Your task to perform on an android device: open sync settings in chrome Image 0: 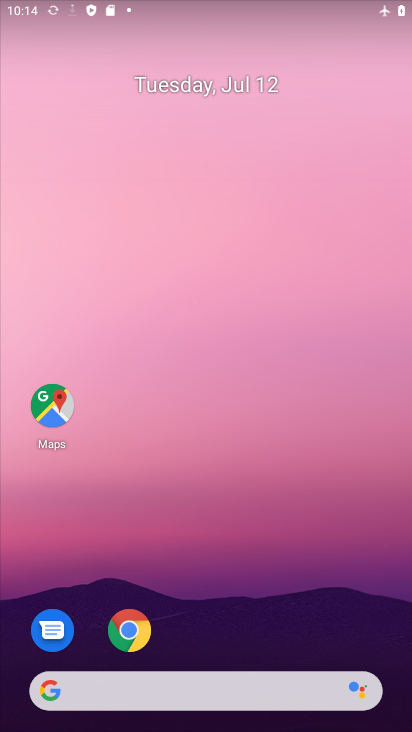
Step 0: click (135, 631)
Your task to perform on an android device: open sync settings in chrome Image 1: 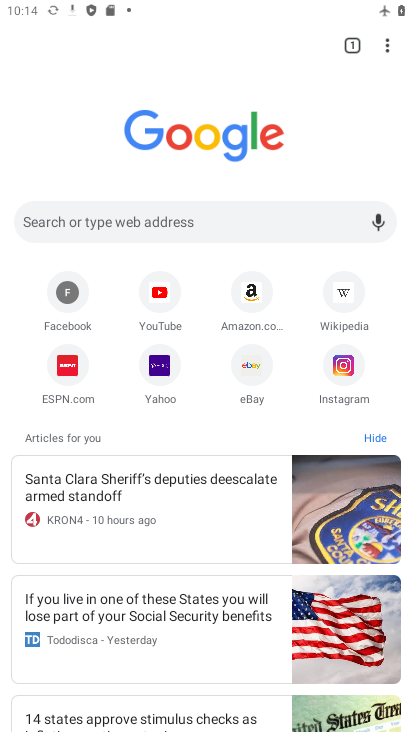
Step 1: click (386, 46)
Your task to perform on an android device: open sync settings in chrome Image 2: 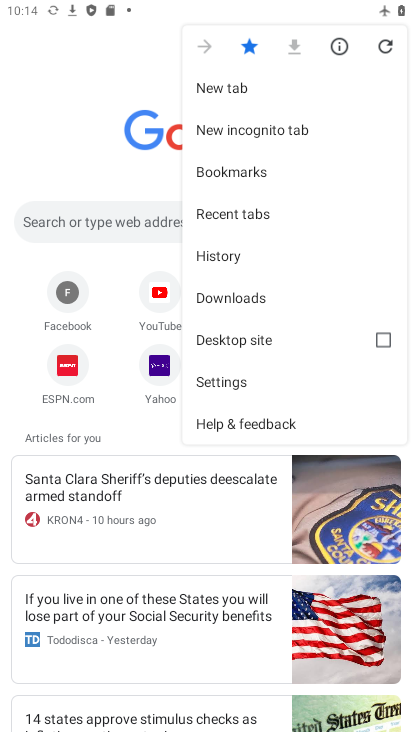
Step 2: click (237, 387)
Your task to perform on an android device: open sync settings in chrome Image 3: 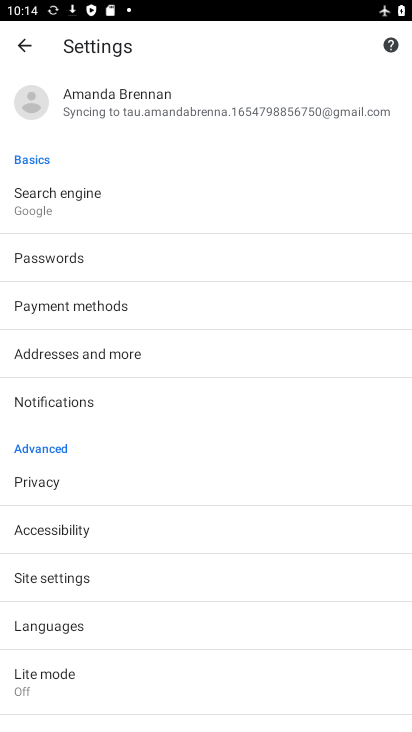
Step 3: click (88, 575)
Your task to perform on an android device: open sync settings in chrome Image 4: 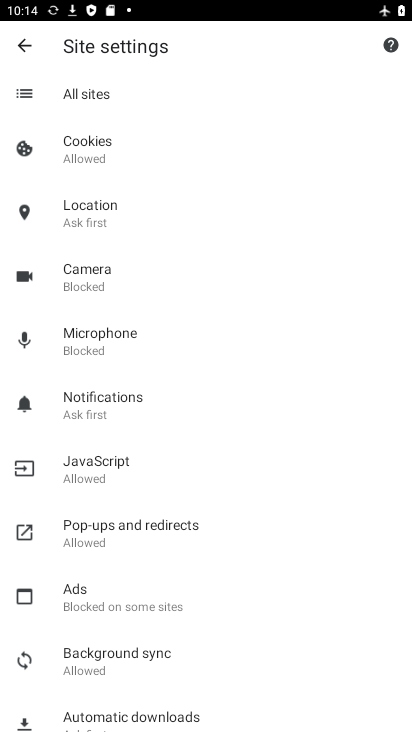
Step 4: click (101, 660)
Your task to perform on an android device: open sync settings in chrome Image 5: 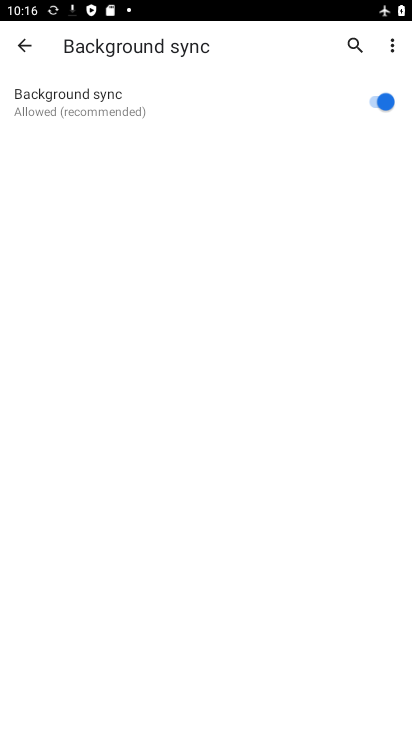
Step 5: task complete